Your task to perform on an android device: Open Google Chrome Image 0: 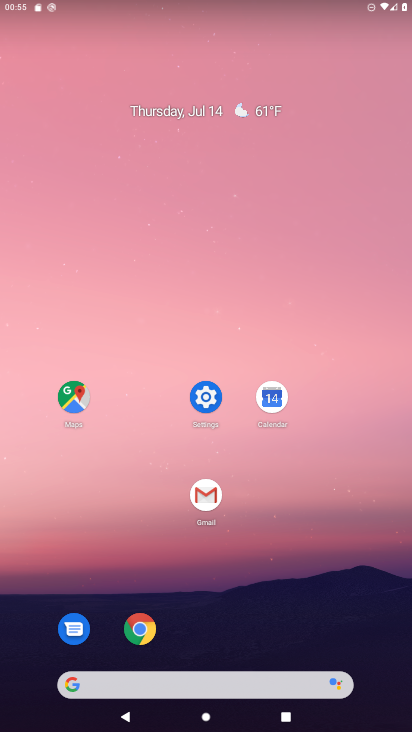
Step 0: click (143, 628)
Your task to perform on an android device: Open Google Chrome Image 1: 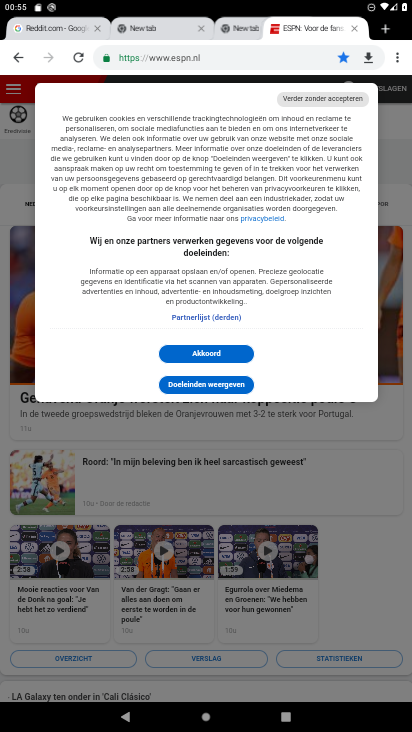
Step 1: task complete